Your task to perform on an android device: Open the web browser Image 0: 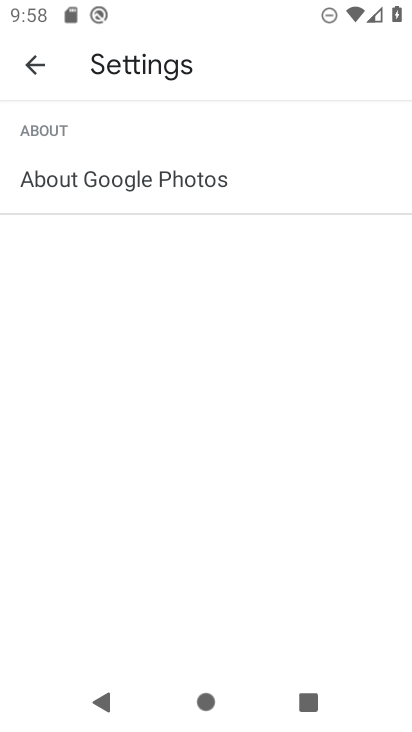
Step 0: press back button
Your task to perform on an android device: Open the web browser Image 1: 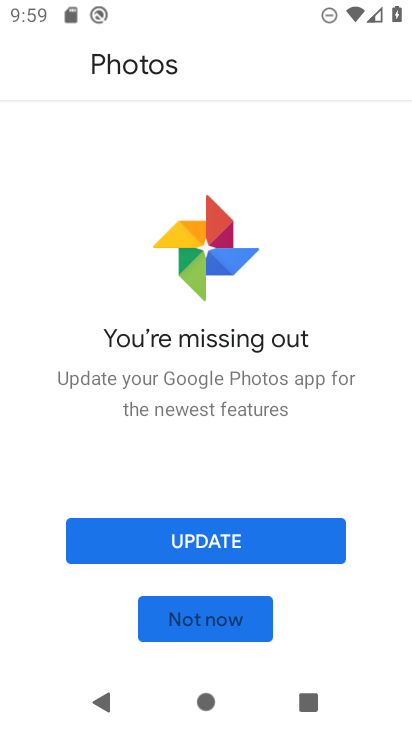
Step 1: press home button
Your task to perform on an android device: Open the web browser Image 2: 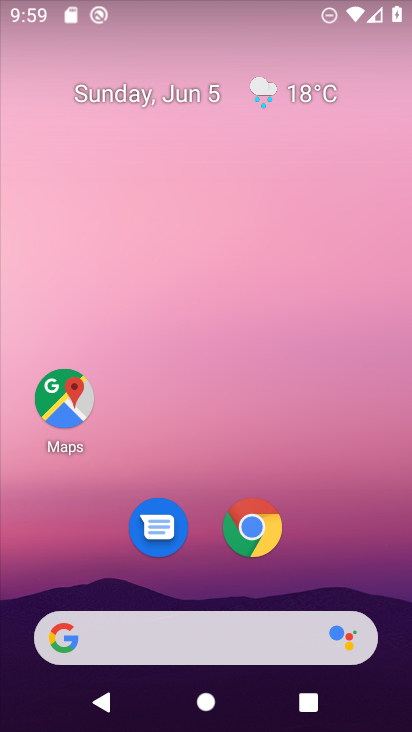
Step 2: click (255, 515)
Your task to perform on an android device: Open the web browser Image 3: 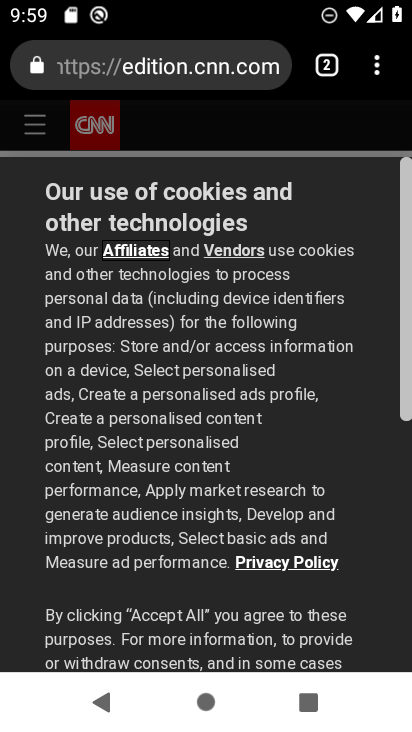
Step 3: task complete